Your task to perform on an android device: turn on improve location accuracy Image 0: 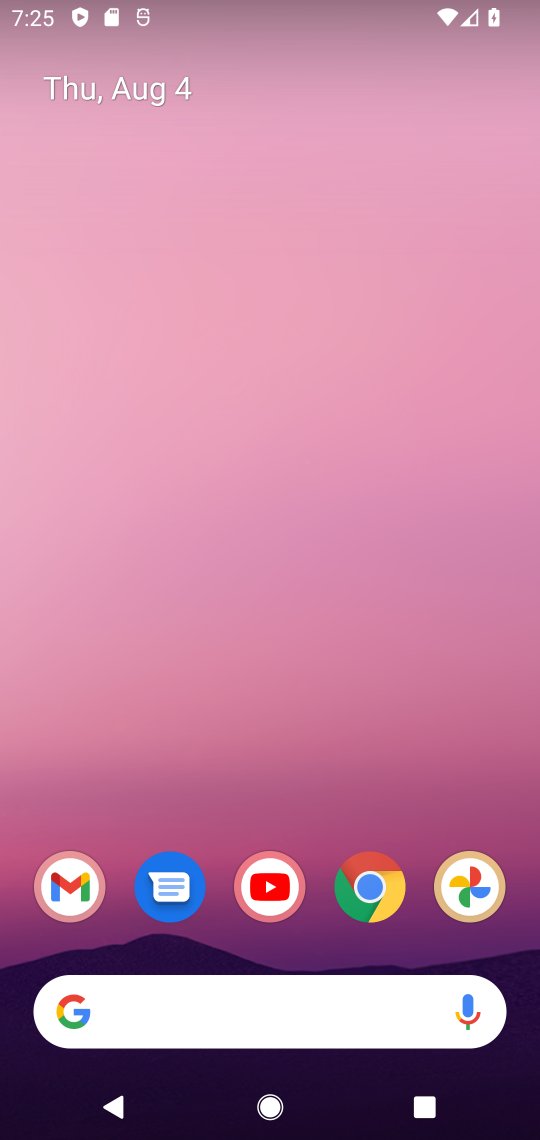
Step 0: drag from (235, 951) to (232, 302)
Your task to perform on an android device: turn on improve location accuracy Image 1: 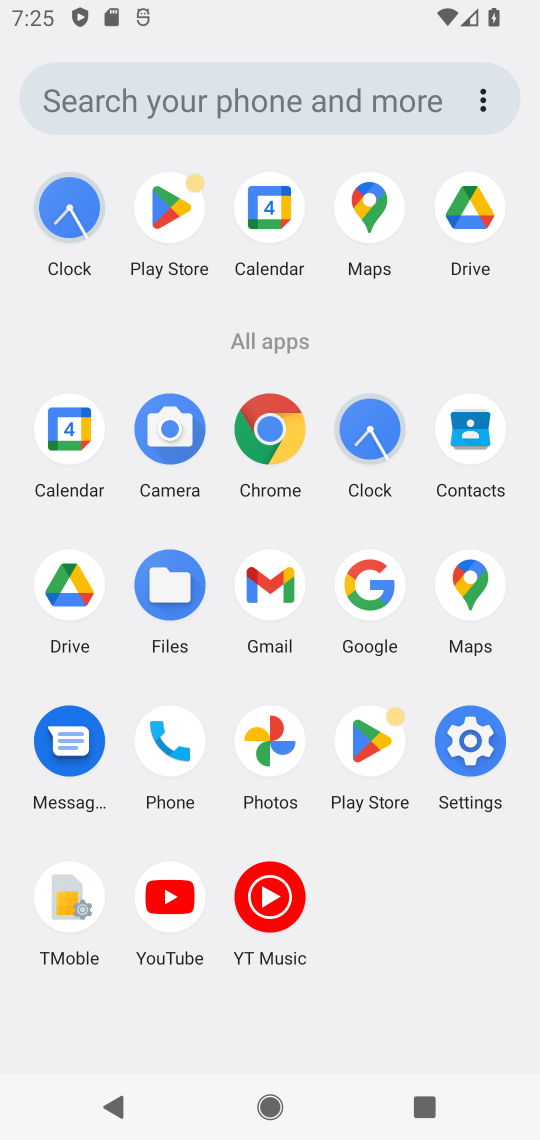
Step 1: click (461, 757)
Your task to perform on an android device: turn on improve location accuracy Image 2: 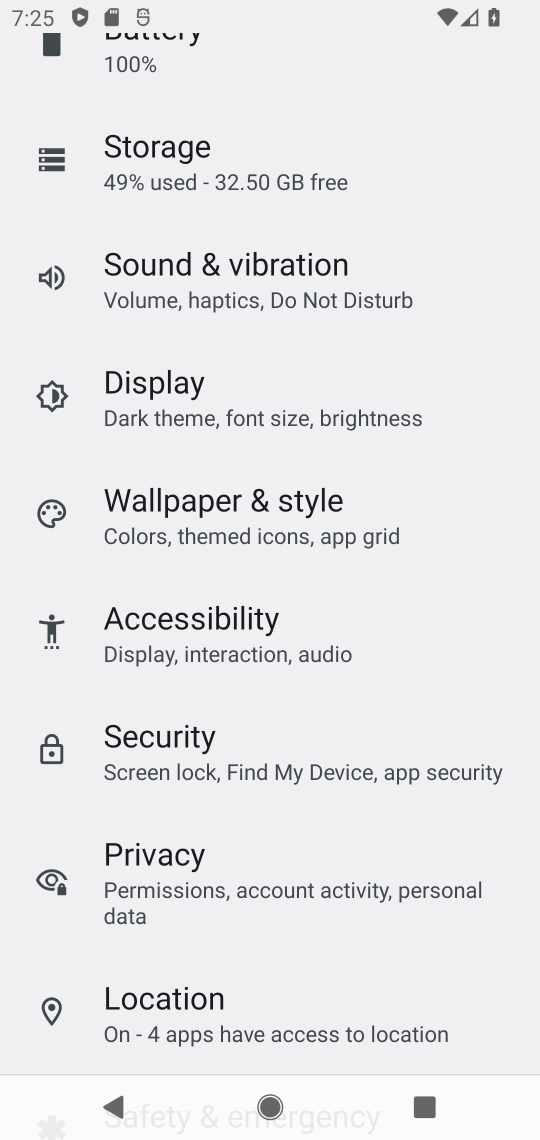
Step 2: click (224, 1024)
Your task to perform on an android device: turn on improve location accuracy Image 3: 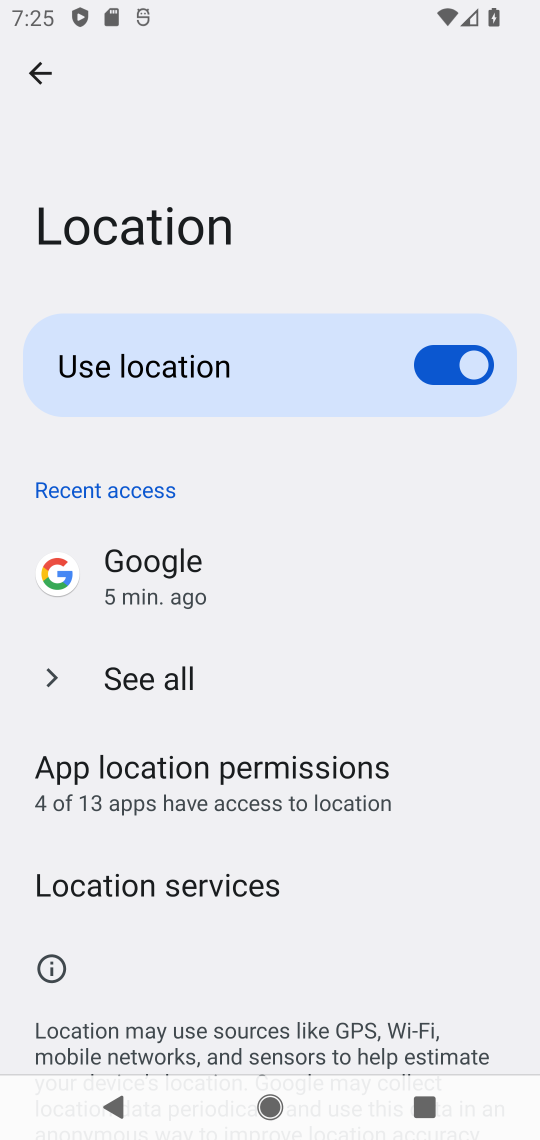
Step 3: drag from (173, 1024) to (150, 403)
Your task to perform on an android device: turn on improve location accuracy Image 4: 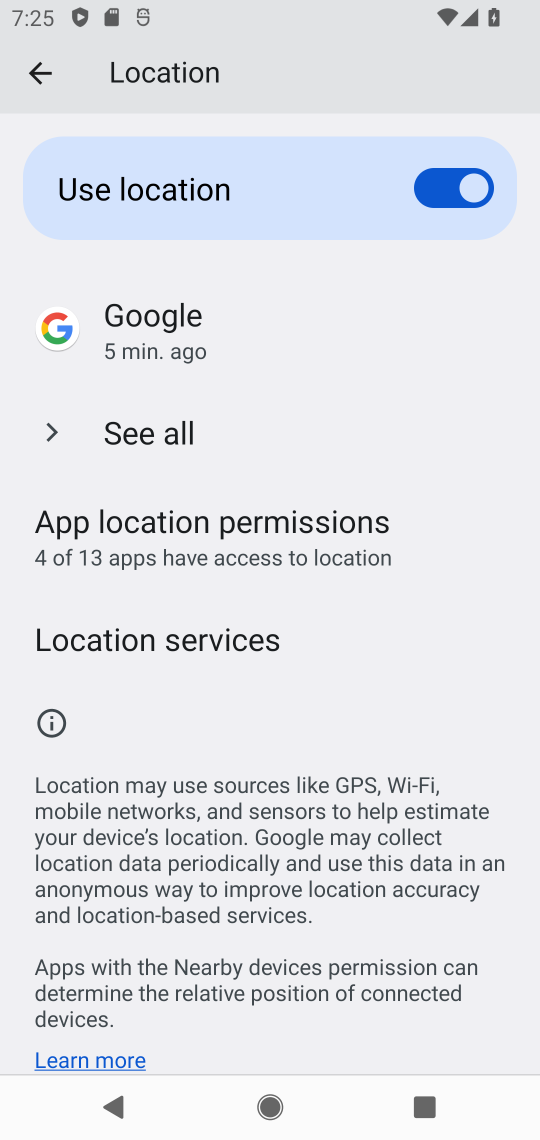
Step 4: click (130, 643)
Your task to perform on an android device: turn on improve location accuracy Image 5: 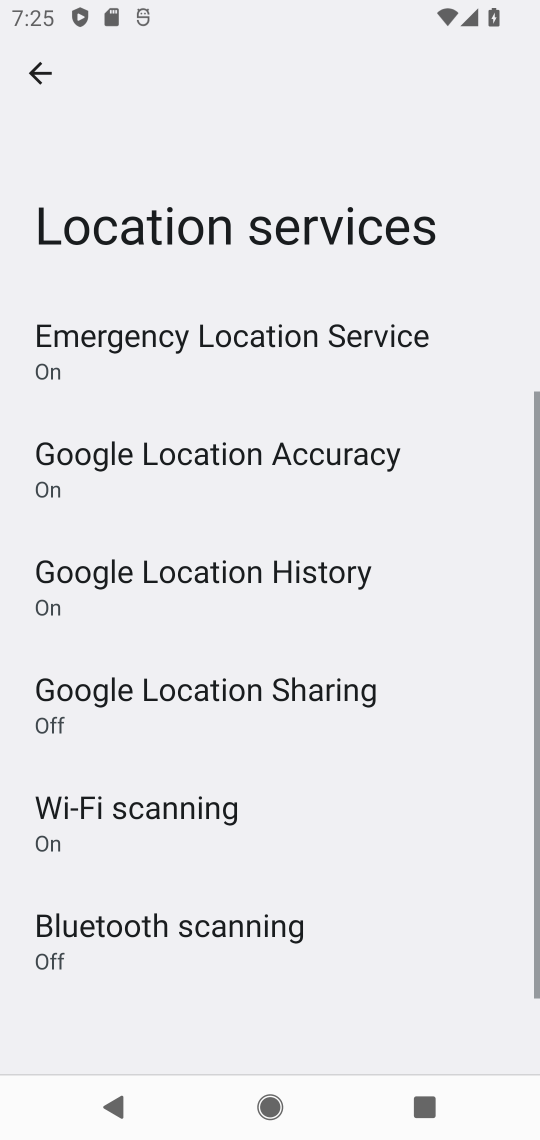
Step 5: click (128, 459)
Your task to perform on an android device: turn on improve location accuracy Image 6: 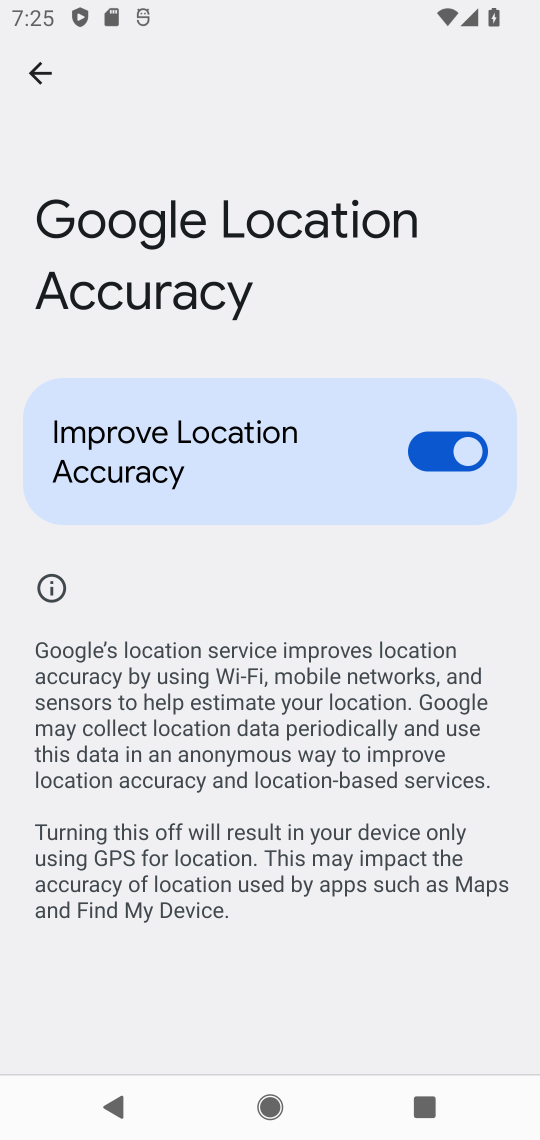
Step 6: task complete